Your task to perform on an android device: turn off sleep mode Image 0: 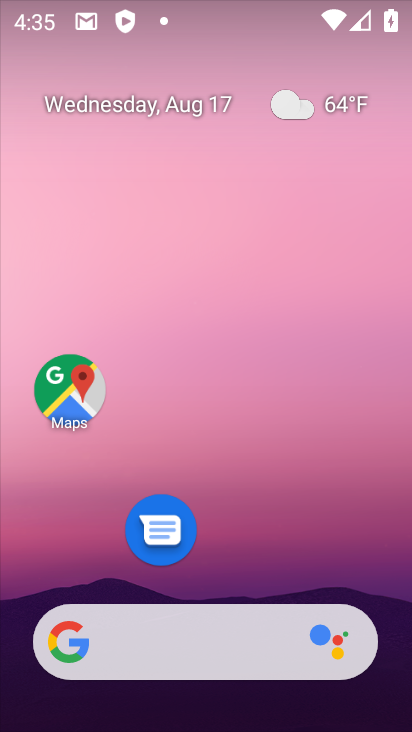
Step 0: drag from (208, 533) to (196, 123)
Your task to perform on an android device: turn off sleep mode Image 1: 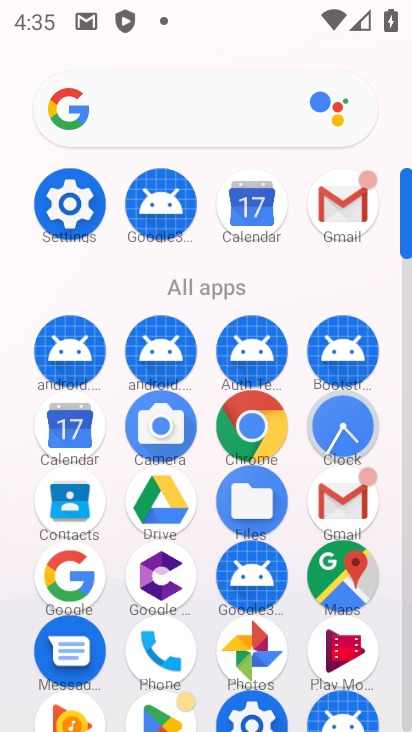
Step 1: click (67, 201)
Your task to perform on an android device: turn off sleep mode Image 2: 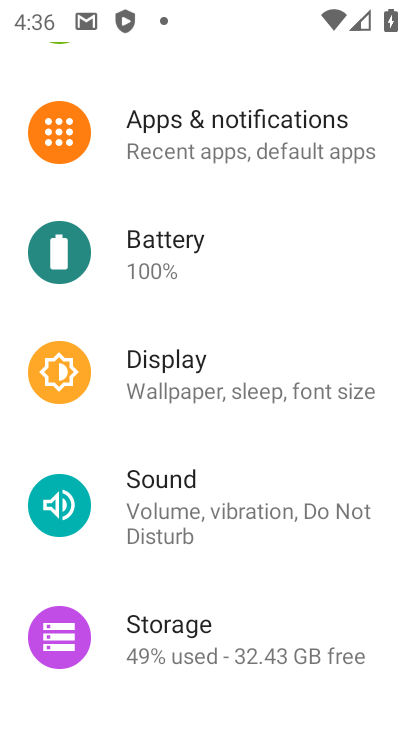
Step 2: task complete